Your task to perform on an android device: change the clock style Image 0: 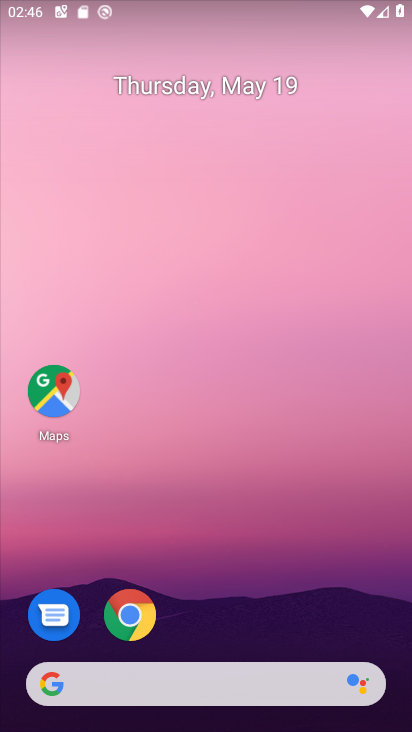
Step 0: drag from (296, 528) to (215, 26)
Your task to perform on an android device: change the clock style Image 1: 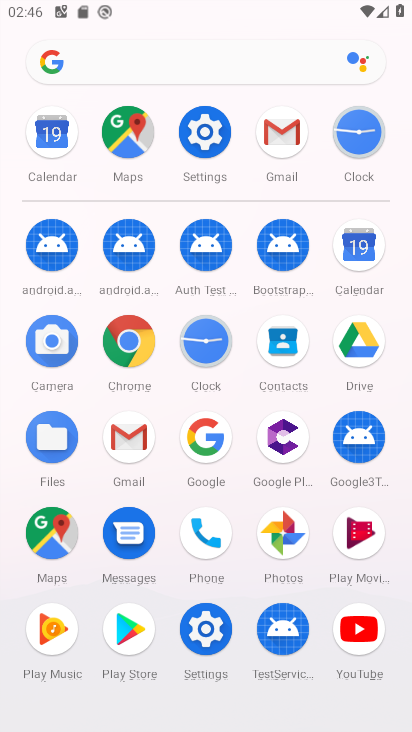
Step 1: drag from (16, 496) to (22, 172)
Your task to perform on an android device: change the clock style Image 2: 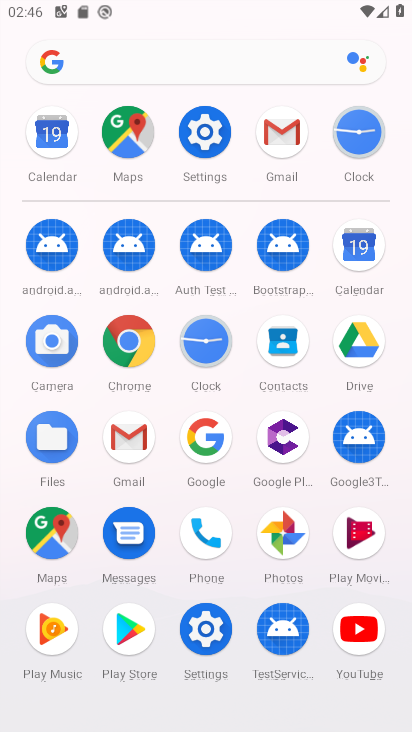
Step 2: click (358, 129)
Your task to perform on an android device: change the clock style Image 3: 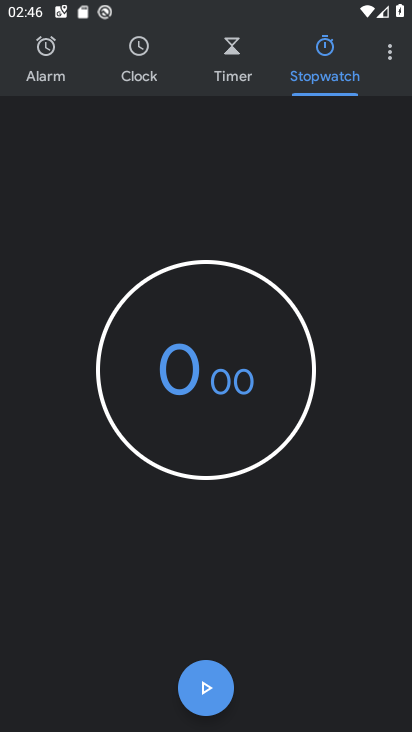
Step 3: click (390, 51)
Your task to perform on an android device: change the clock style Image 4: 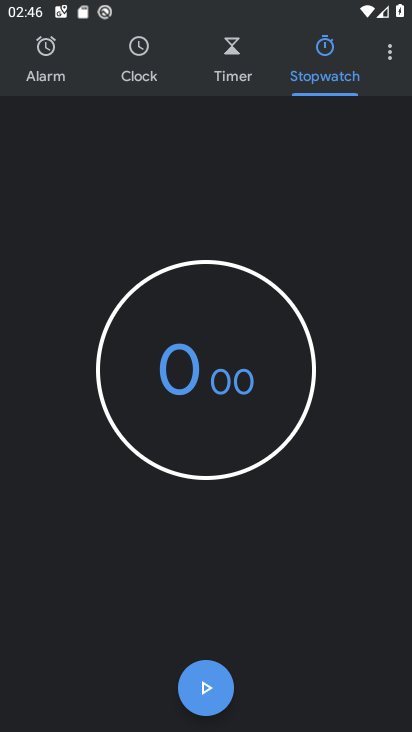
Step 4: click (130, 45)
Your task to perform on an android device: change the clock style Image 5: 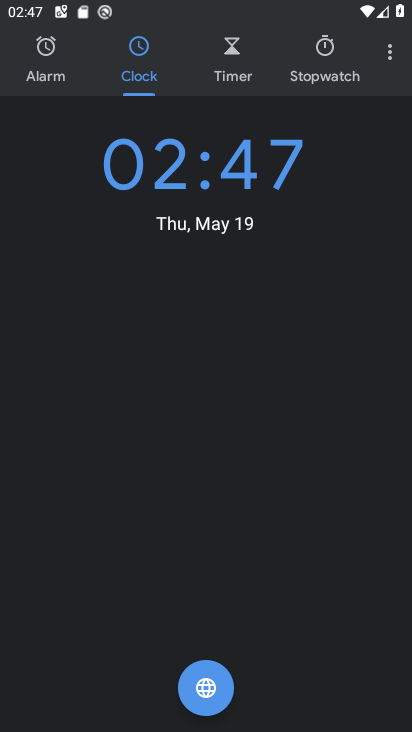
Step 5: drag from (392, 60) to (330, 105)
Your task to perform on an android device: change the clock style Image 6: 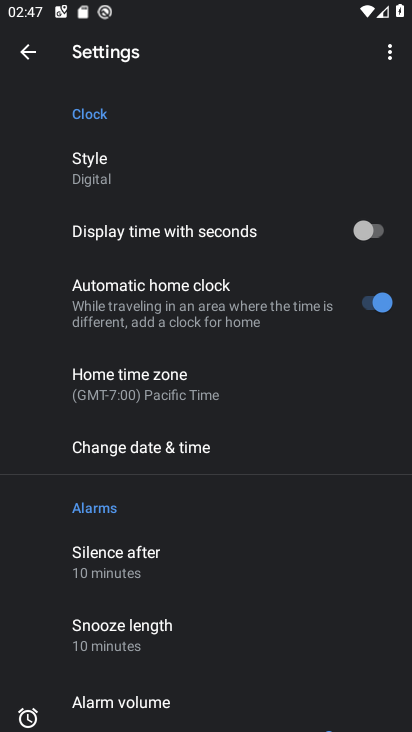
Step 6: click (145, 160)
Your task to perform on an android device: change the clock style Image 7: 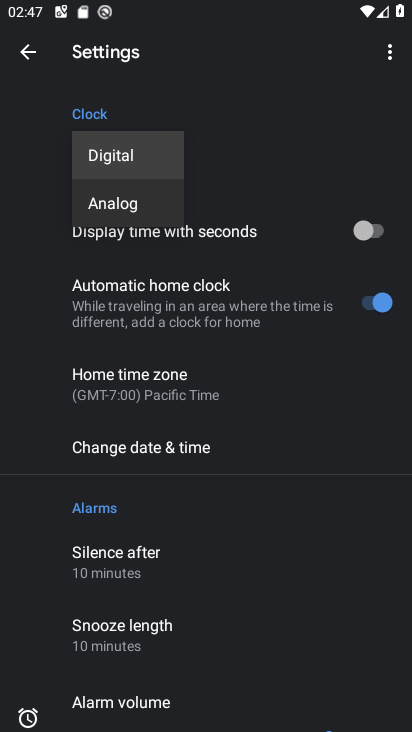
Step 7: click (124, 203)
Your task to perform on an android device: change the clock style Image 8: 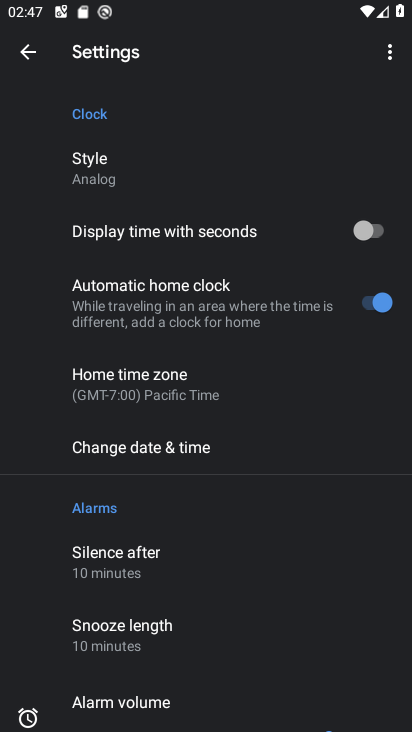
Step 8: task complete